Your task to perform on an android device: Open the Play Movies app and select the watchlist tab. Image 0: 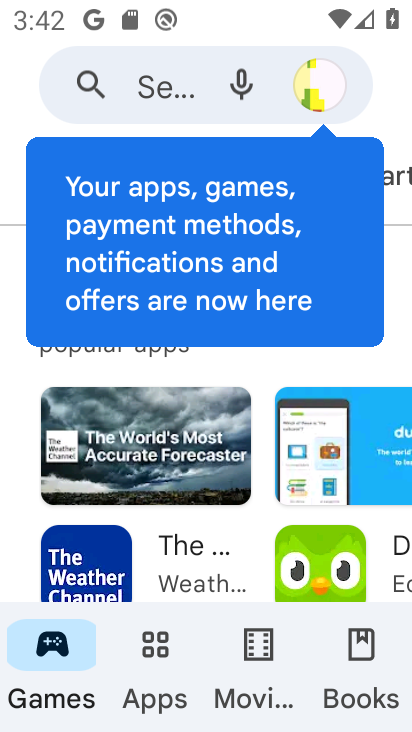
Step 0: press home button
Your task to perform on an android device: Open the Play Movies app and select the watchlist tab. Image 1: 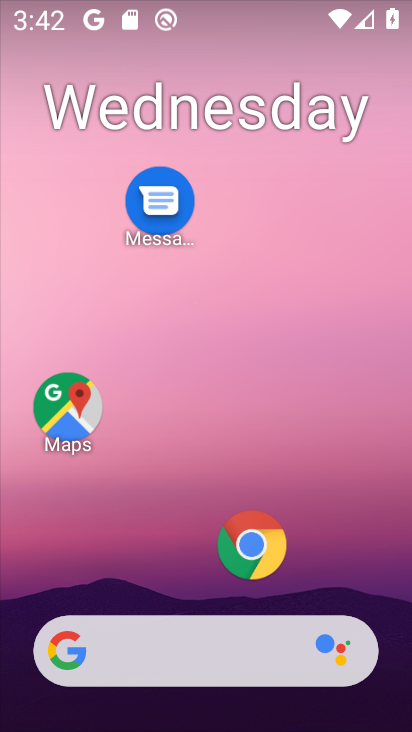
Step 1: drag from (331, 561) to (285, 205)
Your task to perform on an android device: Open the Play Movies app and select the watchlist tab. Image 2: 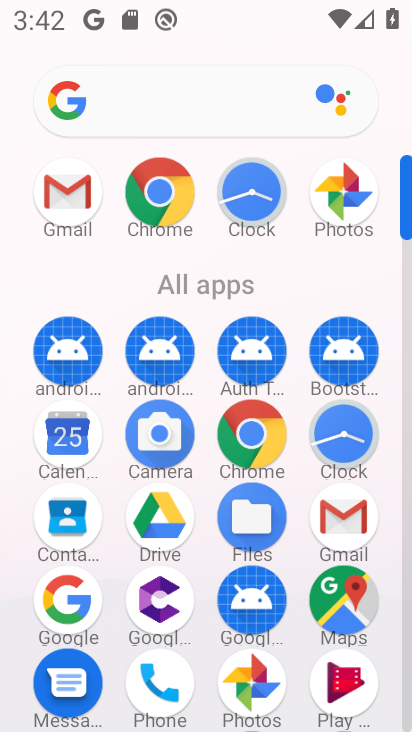
Step 2: click (343, 677)
Your task to perform on an android device: Open the Play Movies app and select the watchlist tab. Image 3: 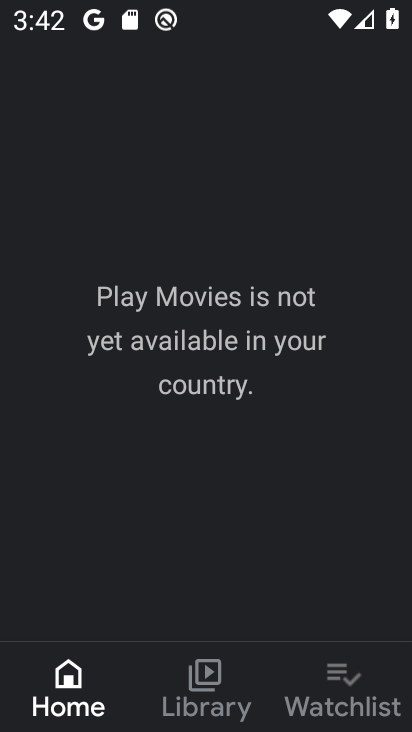
Step 3: click (343, 675)
Your task to perform on an android device: Open the Play Movies app and select the watchlist tab. Image 4: 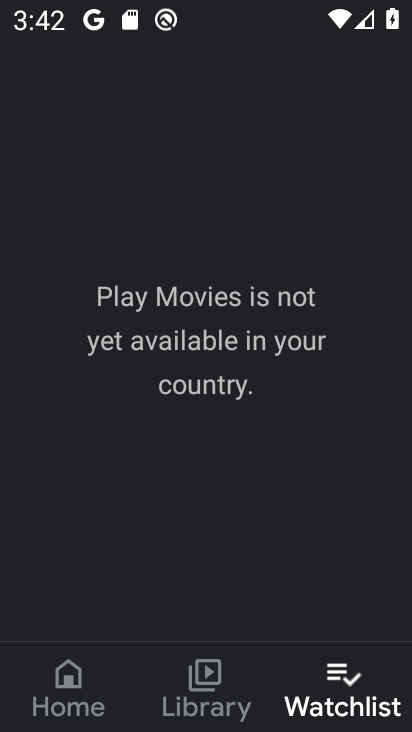
Step 4: task complete